Your task to perform on an android device: toggle improve location accuracy Image 0: 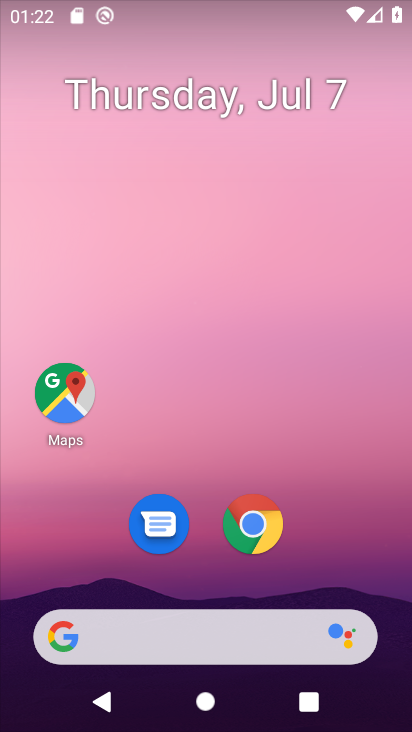
Step 0: drag from (306, 519) to (313, 40)
Your task to perform on an android device: toggle improve location accuracy Image 1: 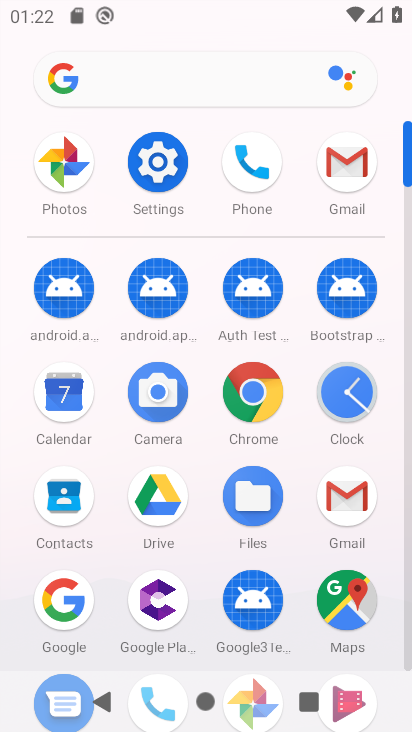
Step 1: click (143, 160)
Your task to perform on an android device: toggle improve location accuracy Image 2: 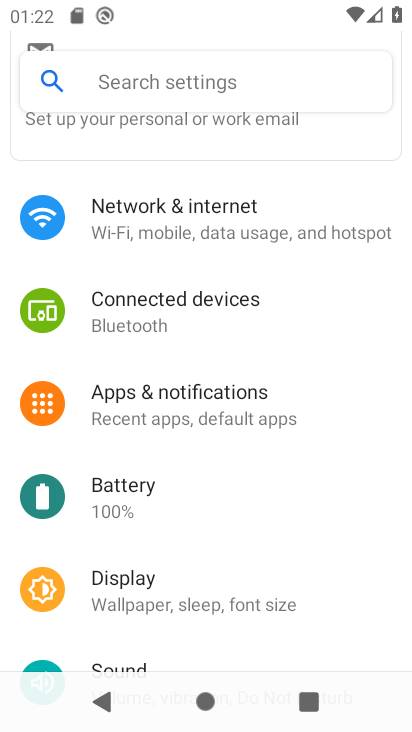
Step 2: drag from (215, 486) to (239, 92)
Your task to perform on an android device: toggle improve location accuracy Image 3: 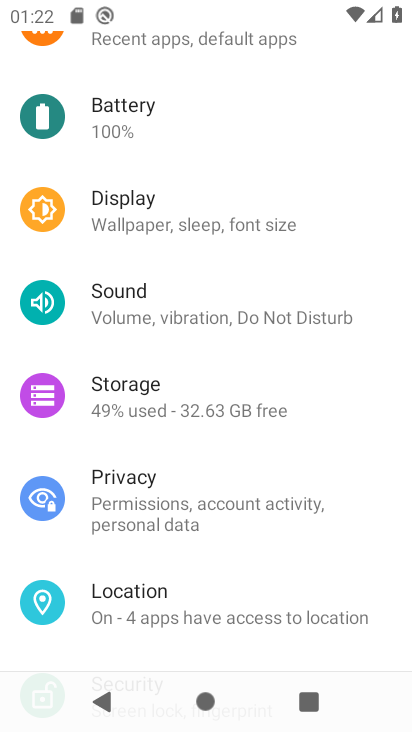
Step 3: click (207, 597)
Your task to perform on an android device: toggle improve location accuracy Image 4: 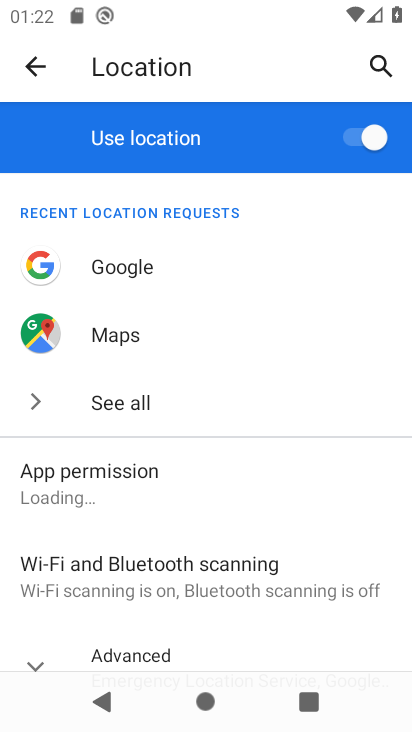
Step 4: drag from (217, 495) to (223, 189)
Your task to perform on an android device: toggle improve location accuracy Image 5: 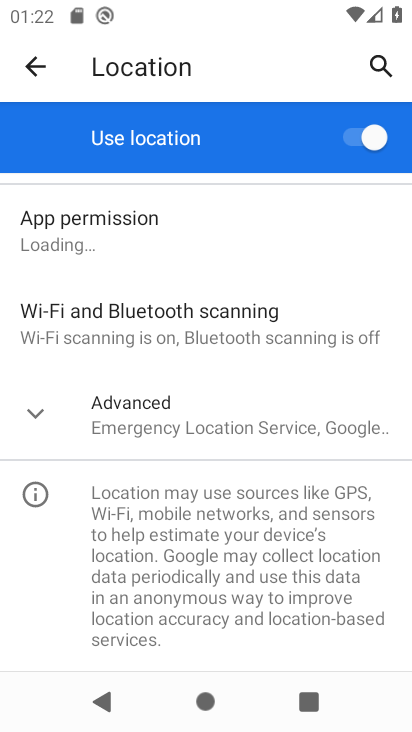
Step 5: click (31, 405)
Your task to perform on an android device: toggle improve location accuracy Image 6: 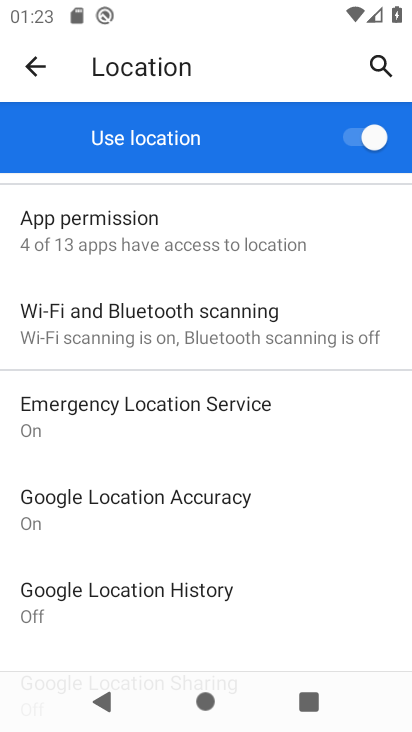
Step 6: click (184, 515)
Your task to perform on an android device: toggle improve location accuracy Image 7: 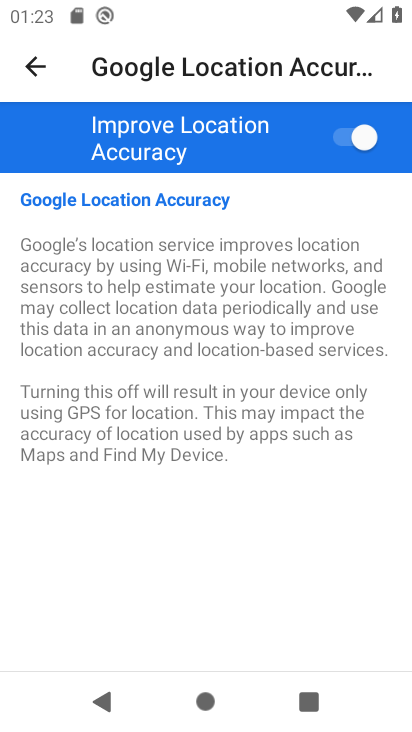
Step 7: click (351, 121)
Your task to perform on an android device: toggle improve location accuracy Image 8: 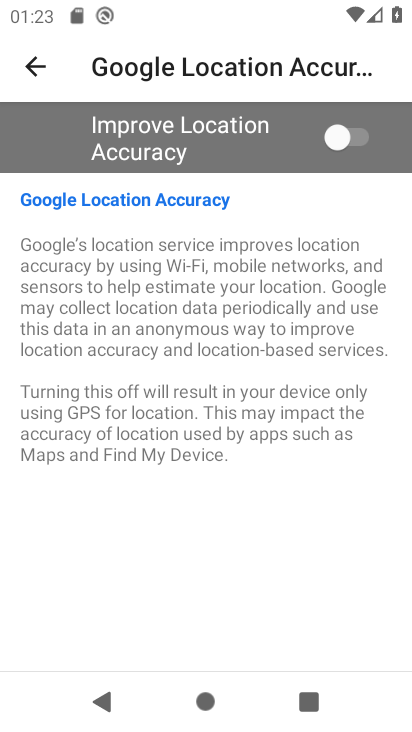
Step 8: task complete